Your task to perform on an android device: Do I have any events today? Image 0: 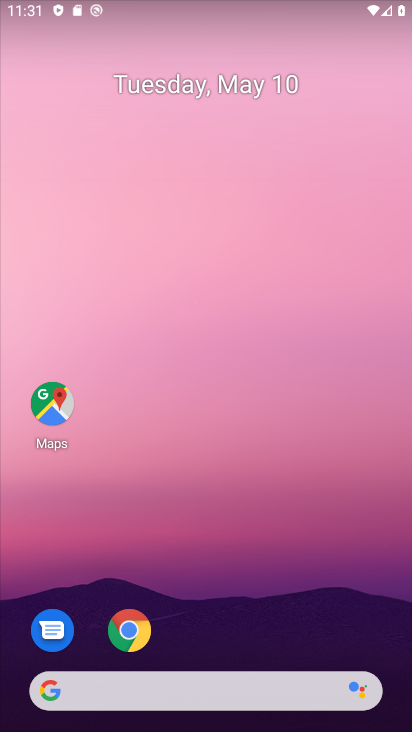
Step 0: drag from (242, 650) to (309, 119)
Your task to perform on an android device: Do I have any events today? Image 1: 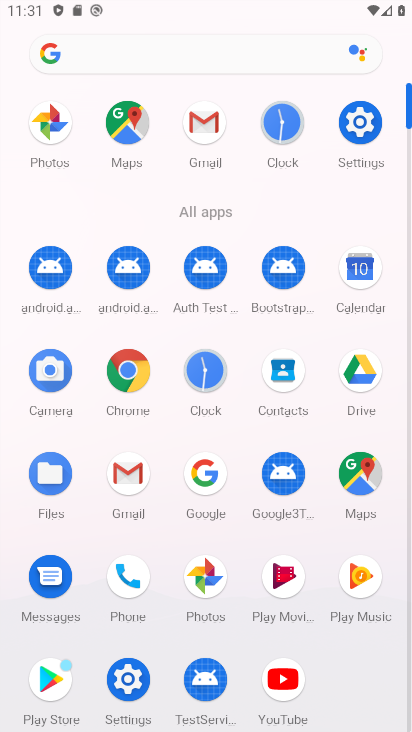
Step 1: drag from (361, 273) to (61, 170)
Your task to perform on an android device: Do I have any events today? Image 2: 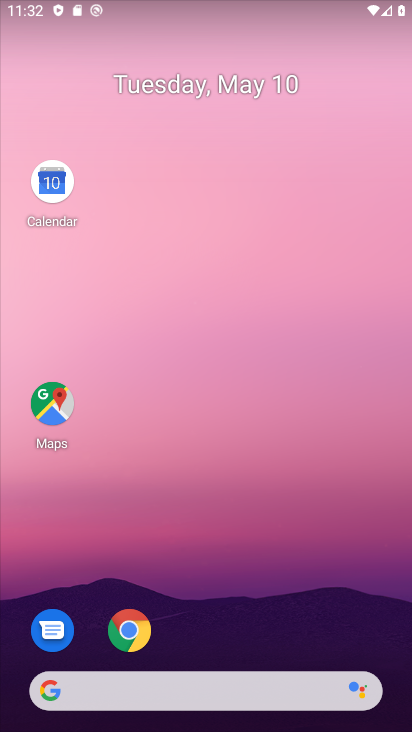
Step 2: click (52, 172)
Your task to perform on an android device: Do I have any events today? Image 3: 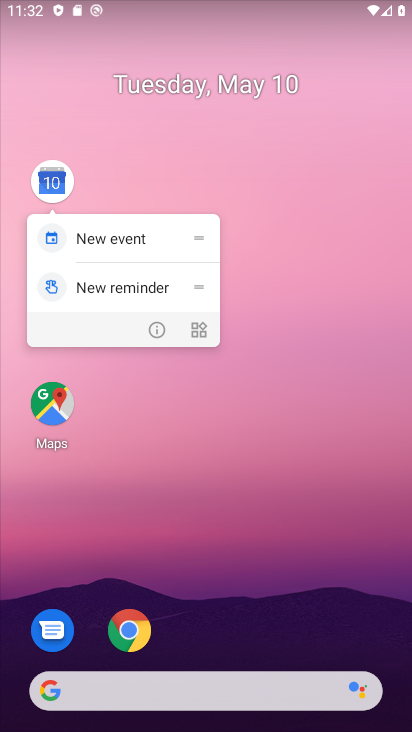
Step 3: click (55, 183)
Your task to perform on an android device: Do I have any events today? Image 4: 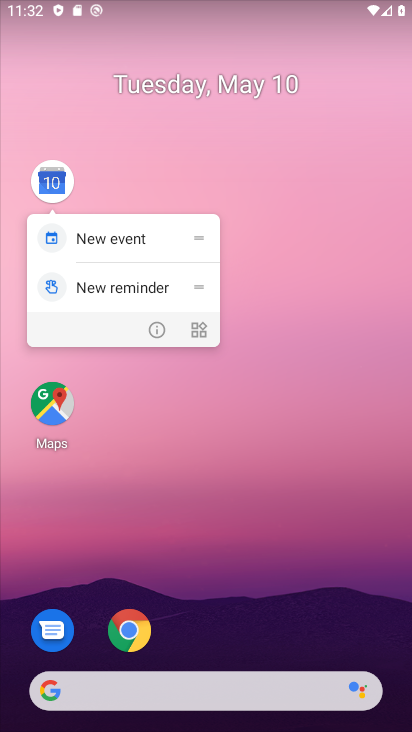
Step 4: click (55, 183)
Your task to perform on an android device: Do I have any events today? Image 5: 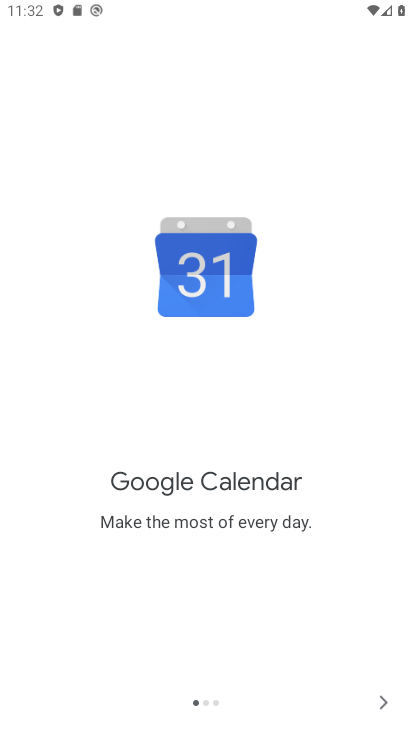
Step 5: click (388, 700)
Your task to perform on an android device: Do I have any events today? Image 6: 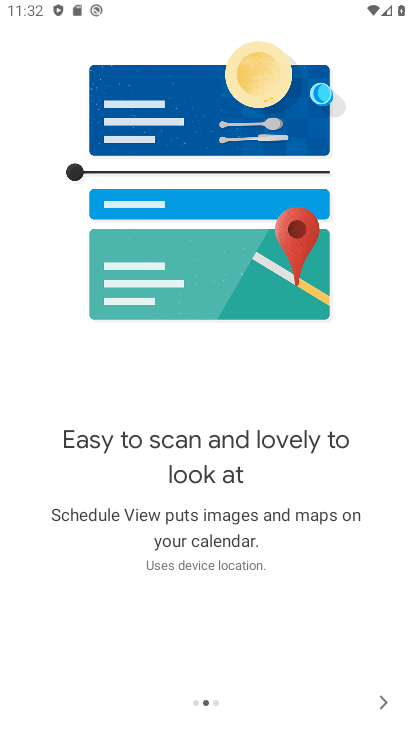
Step 6: click (388, 700)
Your task to perform on an android device: Do I have any events today? Image 7: 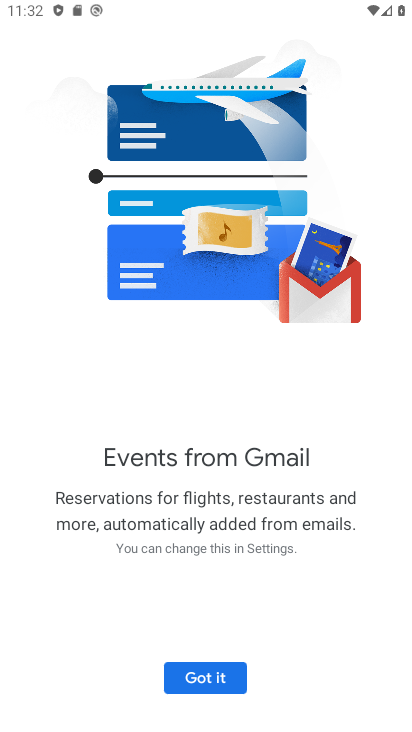
Step 7: click (206, 676)
Your task to perform on an android device: Do I have any events today? Image 8: 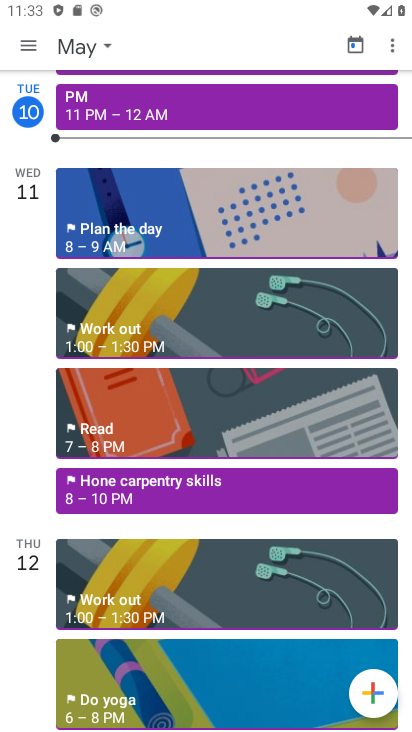
Step 8: task complete